Your task to perform on an android device: Open maps Image 0: 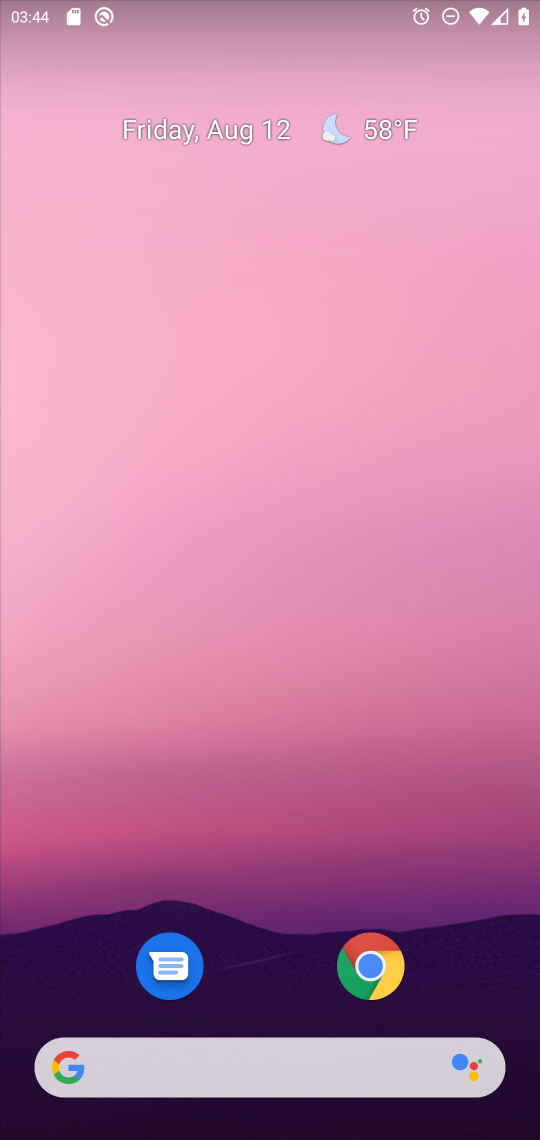
Step 0: drag from (249, 804) to (296, 24)
Your task to perform on an android device: Open maps Image 1: 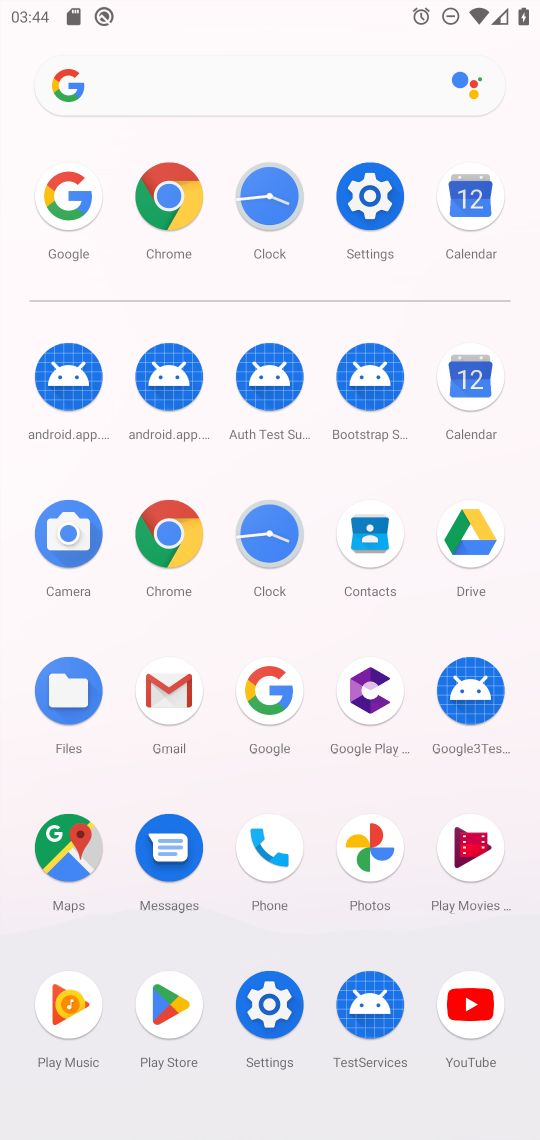
Step 1: click (74, 855)
Your task to perform on an android device: Open maps Image 2: 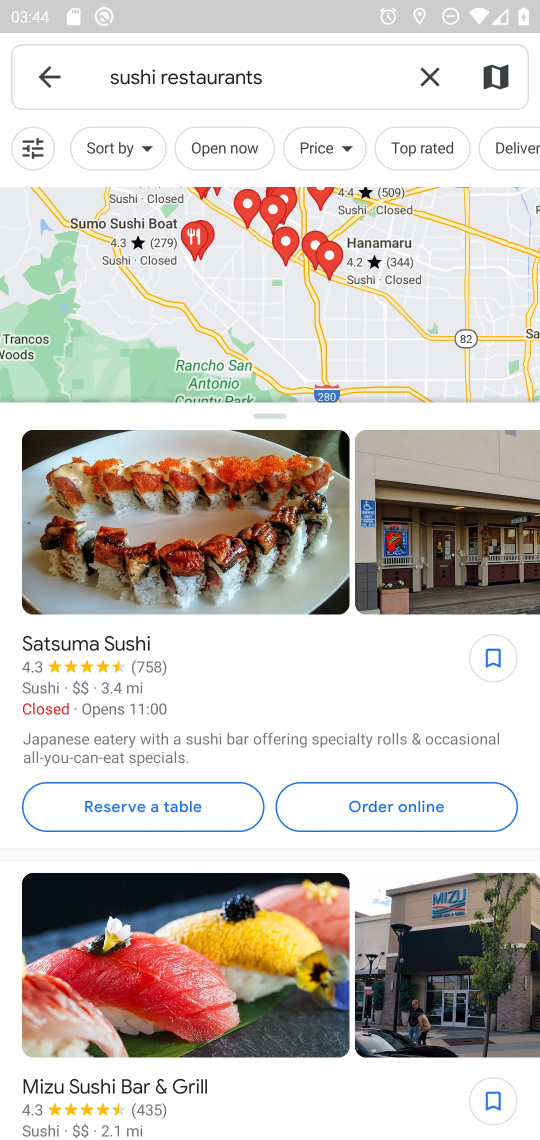
Step 2: task complete